Your task to perform on an android device: turn on airplane mode Image 0: 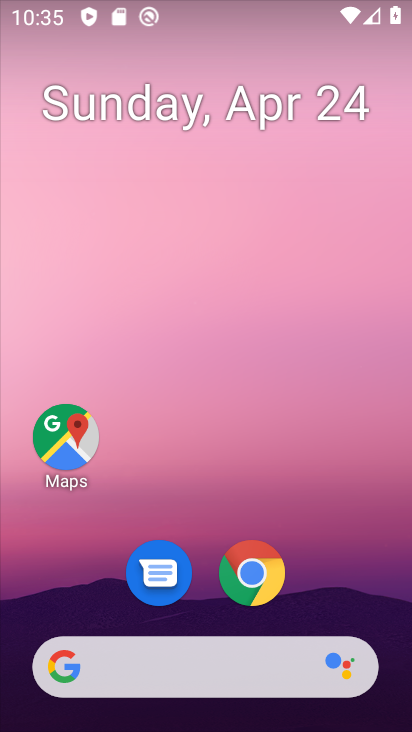
Step 0: drag from (343, 574) to (316, 74)
Your task to perform on an android device: turn on airplane mode Image 1: 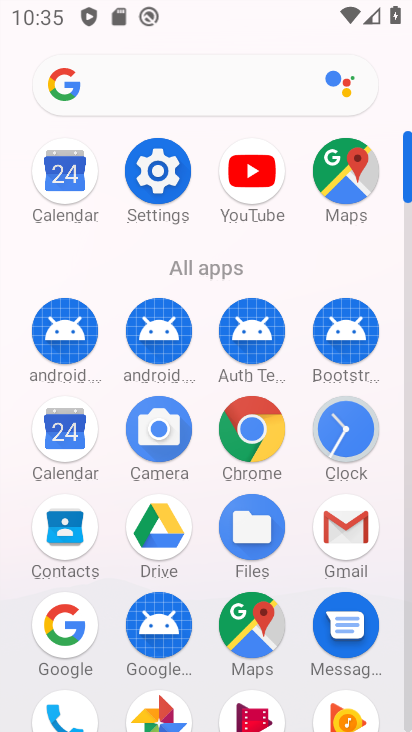
Step 1: click (171, 167)
Your task to perform on an android device: turn on airplane mode Image 2: 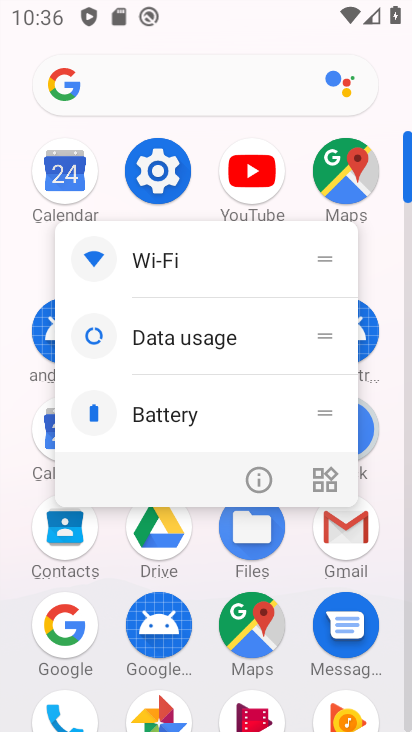
Step 2: click (163, 188)
Your task to perform on an android device: turn on airplane mode Image 3: 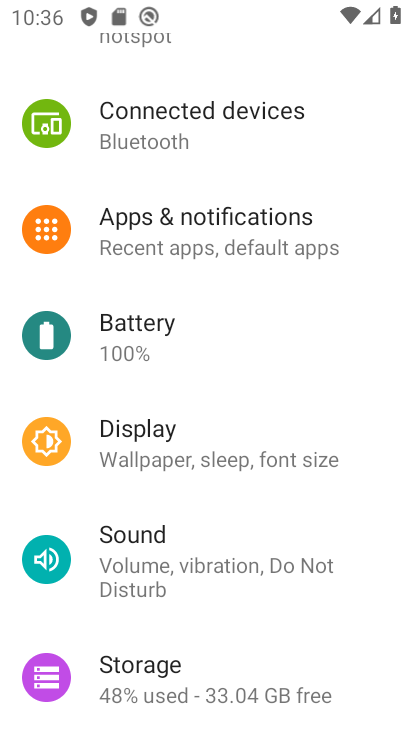
Step 3: drag from (173, 189) to (191, 337)
Your task to perform on an android device: turn on airplane mode Image 4: 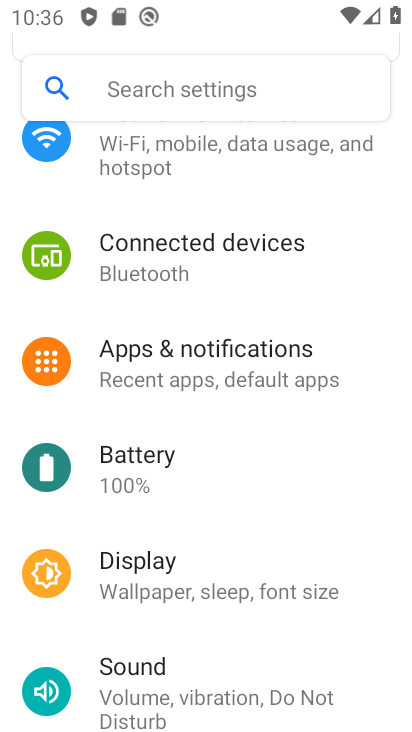
Step 4: drag from (167, 246) to (188, 410)
Your task to perform on an android device: turn on airplane mode Image 5: 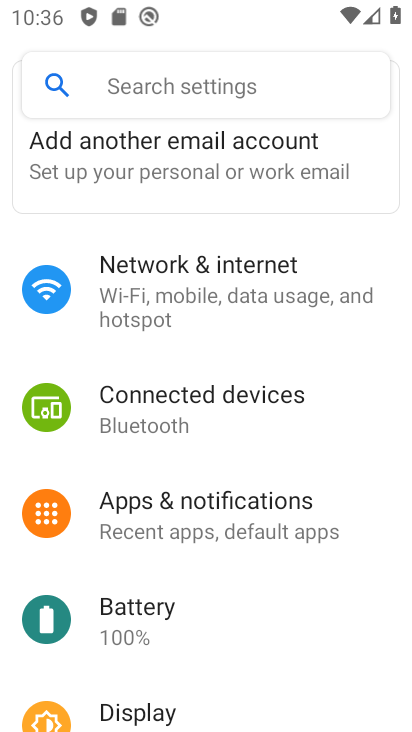
Step 5: click (199, 294)
Your task to perform on an android device: turn on airplane mode Image 6: 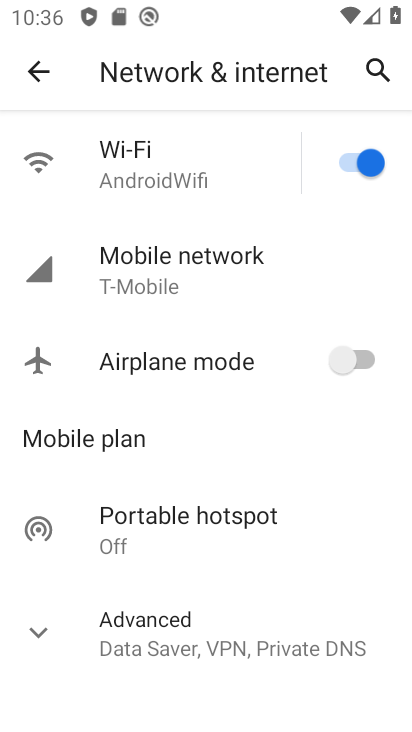
Step 6: click (363, 349)
Your task to perform on an android device: turn on airplane mode Image 7: 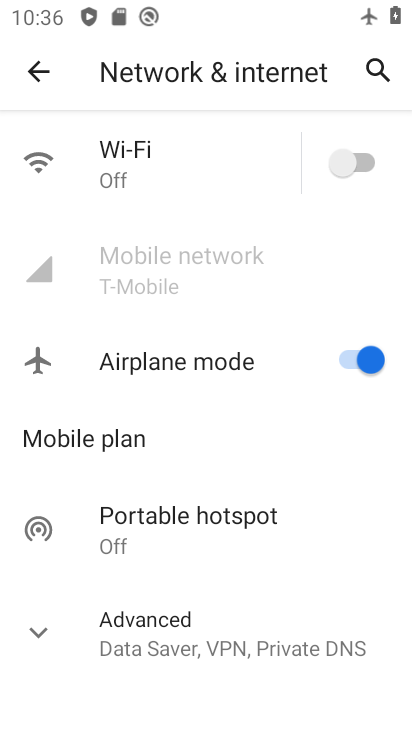
Step 7: task complete